Your task to perform on an android device: Go to settings Image 0: 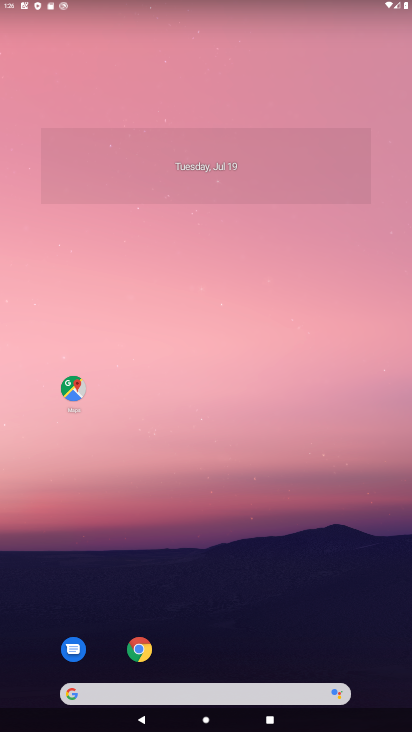
Step 0: drag from (272, 569) to (326, 178)
Your task to perform on an android device: Go to settings Image 1: 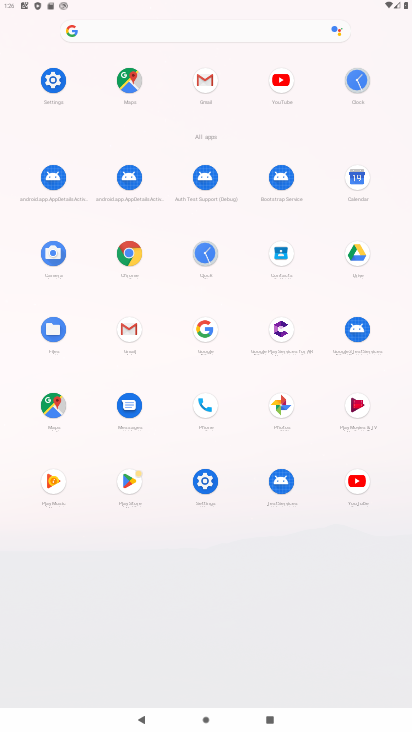
Step 1: click (205, 481)
Your task to perform on an android device: Go to settings Image 2: 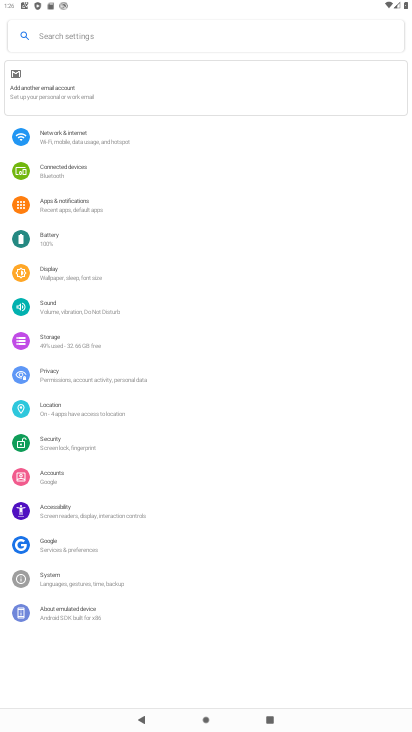
Step 2: task complete